Your task to perform on an android device: Show me popular games on the Play Store Image 0: 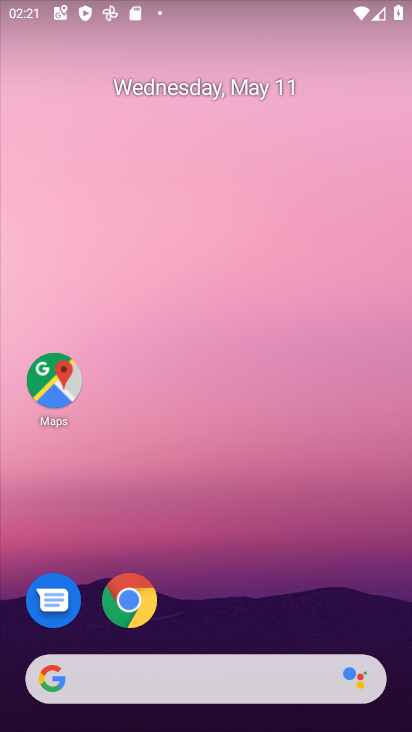
Step 0: drag from (276, 438) to (247, 132)
Your task to perform on an android device: Show me popular games on the Play Store Image 1: 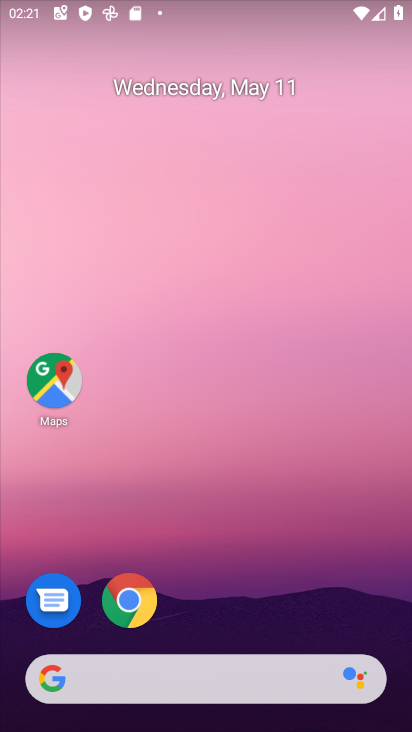
Step 1: drag from (206, 727) to (216, 117)
Your task to perform on an android device: Show me popular games on the Play Store Image 2: 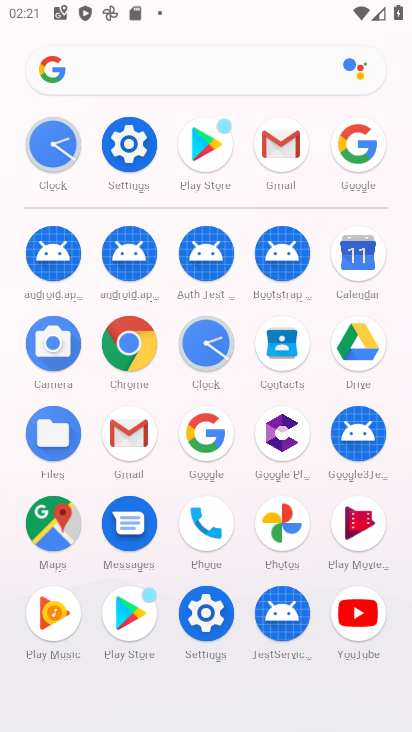
Step 2: click (138, 610)
Your task to perform on an android device: Show me popular games on the Play Store Image 3: 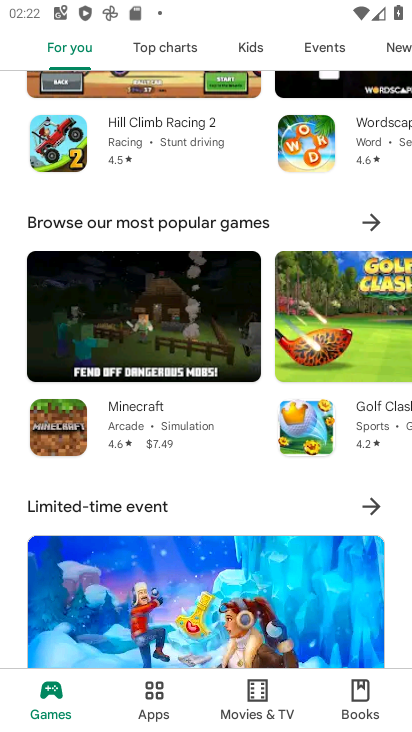
Step 3: task complete